Your task to perform on an android device: toggle data saver in the chrome app Image 0: 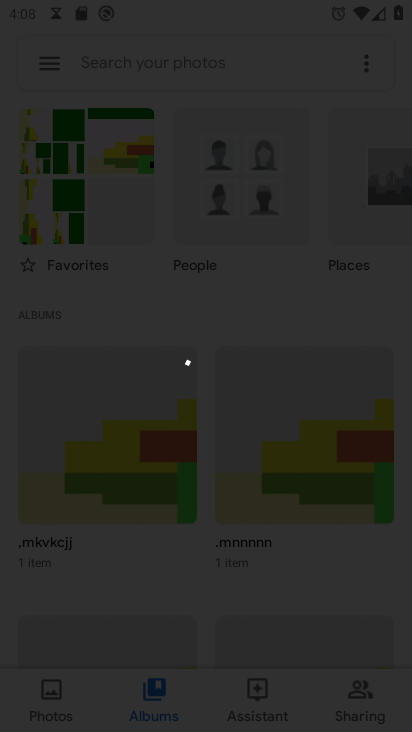
Step 0: press home button
Your task to perform on an android device: toggle data saver in the chrome app Image 1: 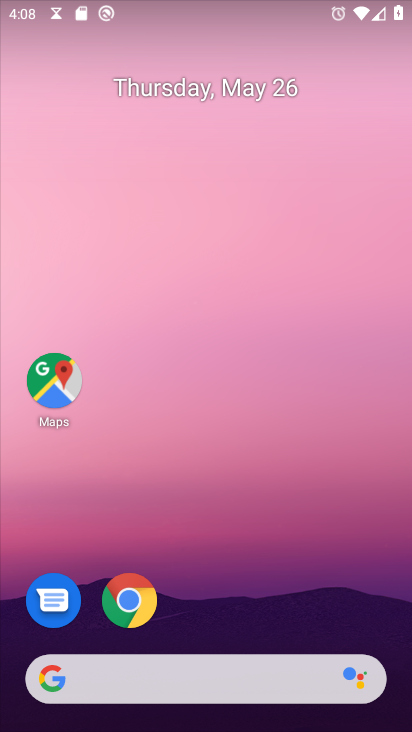
Step 1: click (138, 601)
Your task to perform on an android device: toggle data saver in the chrome app Image 2: 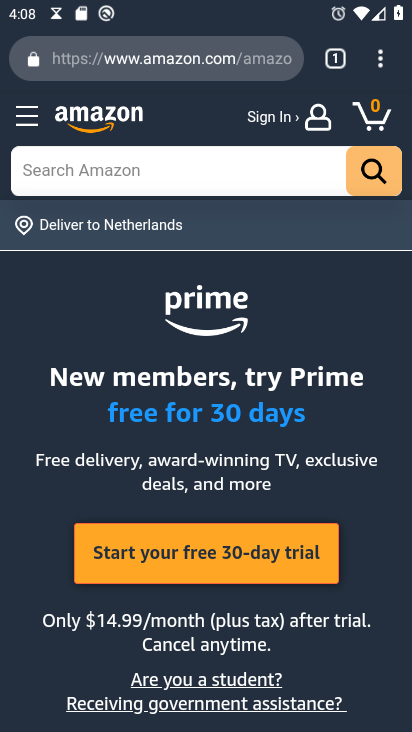
Step 2: click (390, 67)
Your task to perform on an android device: toggle data saver in the chrome app Image 3: 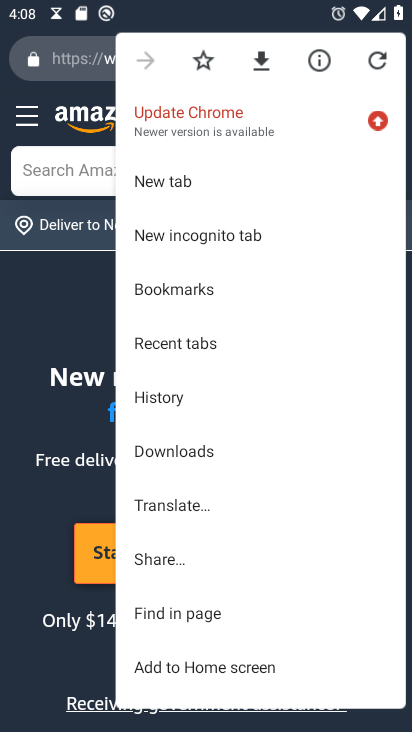
Step 3: drag from (169, 625) to (241, 320)
Your task to perform on an android device: toggle data saver in the chrome app Image 4: 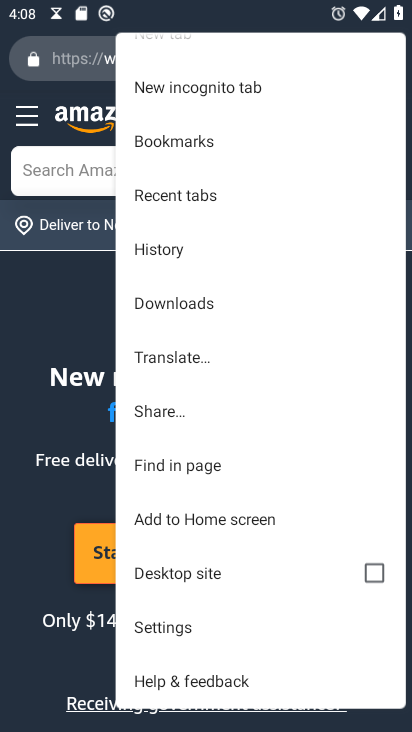
Step 4: click (168, 635)
Your task to perform on an android device: toggle data saver in the chrome app Image 5: 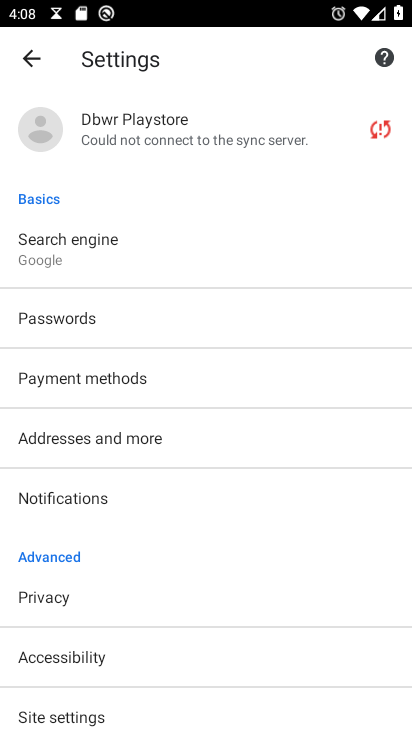
Step 5: drag from (100, 539) to (156, 304)
Your task to perform on an android device: toggle data saver in the chrome app Image 6: 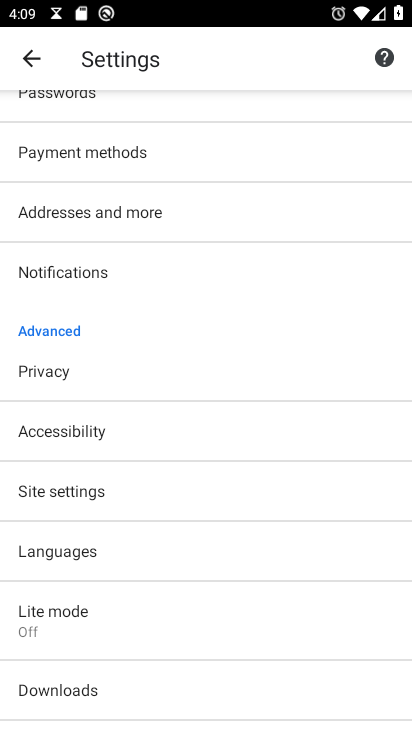
Step 6: click (57, 631)
Your task to perform on an android device: toggle data saver in the chrome app Image 7: 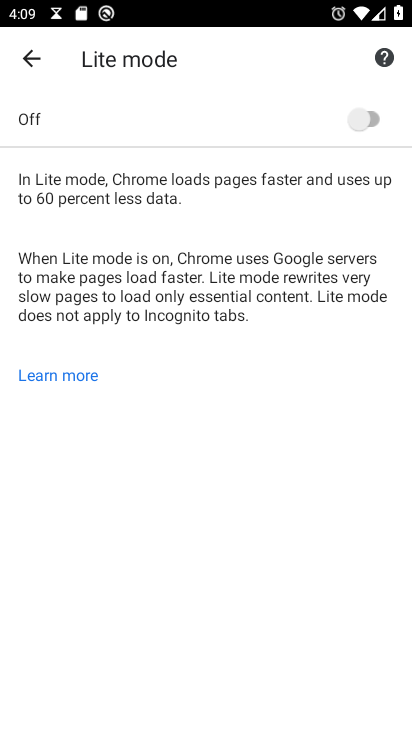
Step 7: click (386, 112)
Your task to perform on an android device: toggle data saver in the chrome app Image 8: 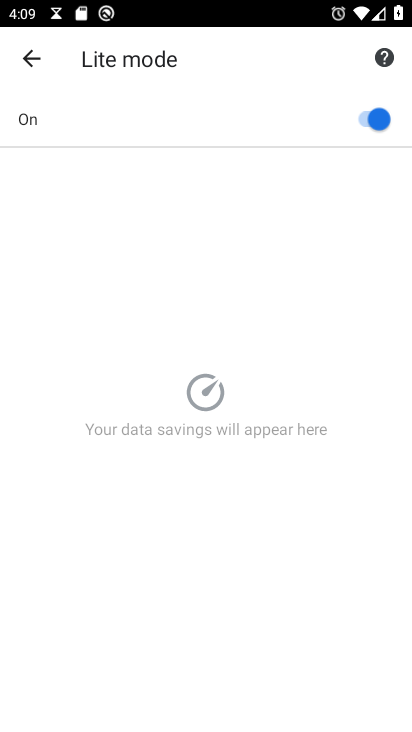
Step 8: task complete